Your task to perform on an android device: Go to Reddit.com Image 0: 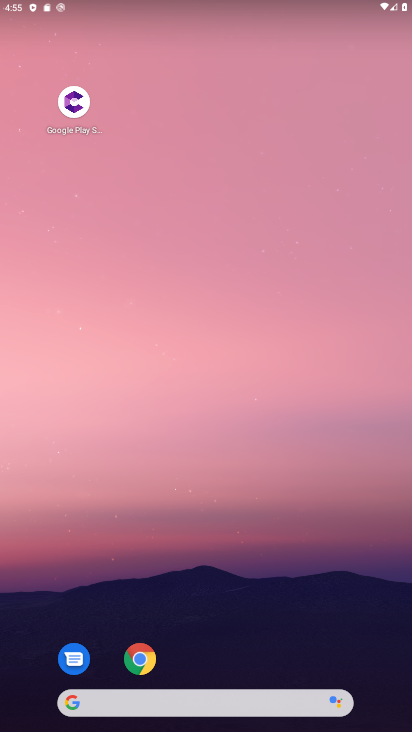
Step 0: drag from (283, 679) to (264, 104)
Your task to perform on an android device: Go to Reddit.com Image 1: 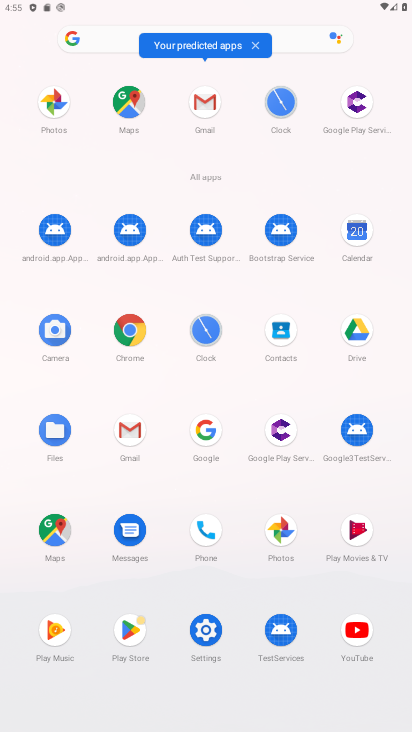
Step 1: click (200, 424)
Your task to perform on an android device: Go to Reddit.com Image 2: 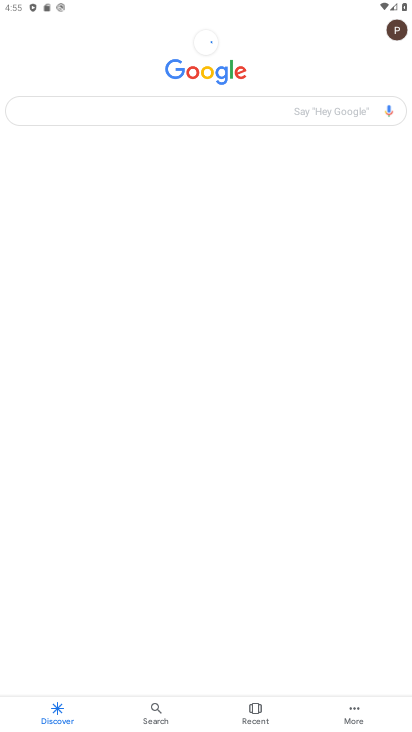
Step 2: click (109, 108)
Your task to perform on an android device: Go to Reddit.com Image 3: 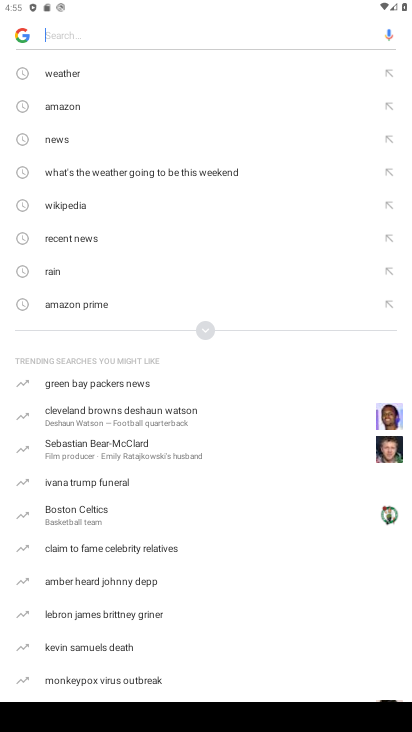
Step 3: click (205, 330)
Your task to perform on an android device: Go to Reddit.com Image 4: 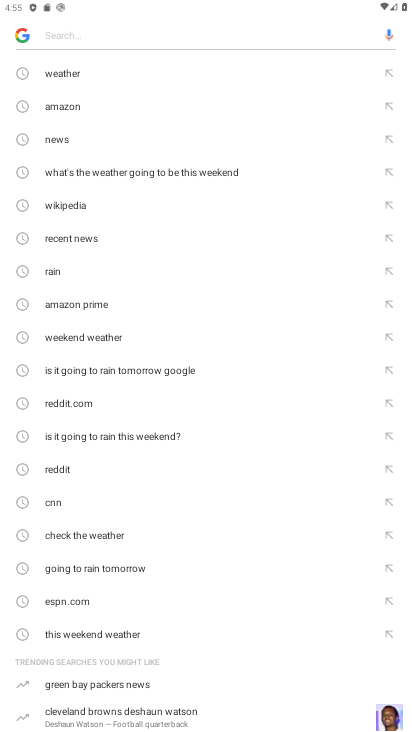
Step 4: click (68, 394)
Your task to perform on an android device: Go to Reddit.com Image 5: 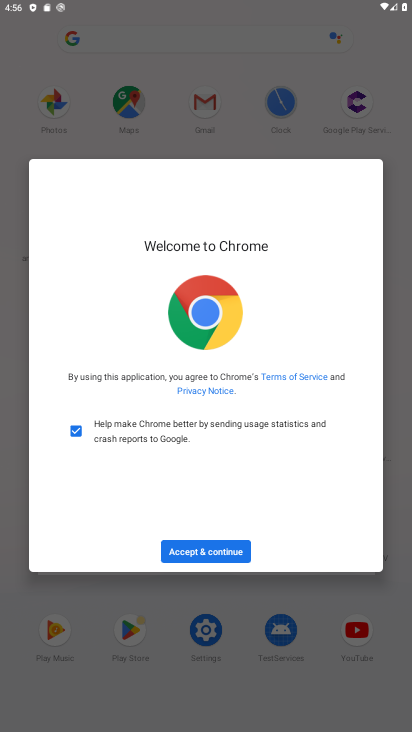
Step 5: click (227, 548)
Your task to perform on an android device: Go to Reddit.com Image 6: 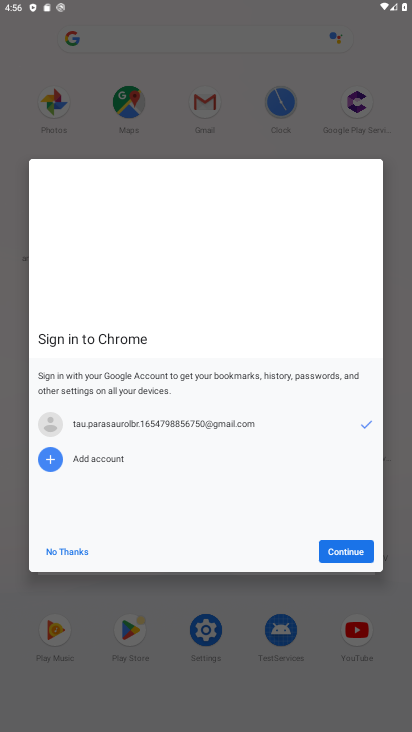
Step 6: click (327, 549)
Your task to perform on an android device: Go to Reddit.com Image 7: 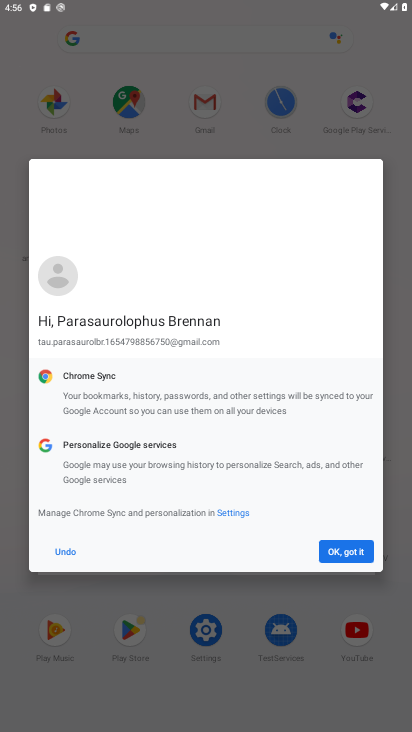
Step 7: click (327, 549)
Your task to perform on an android device: Go to Reddit.com Image 8: 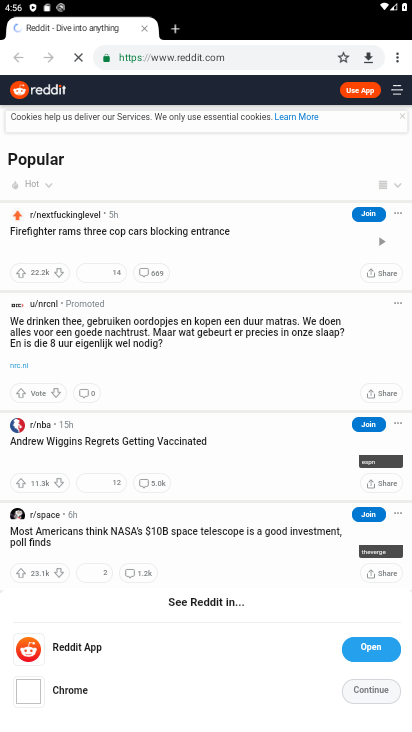
Step 8: task complete